Your task to perform on an android device: Go to settings Image 0: 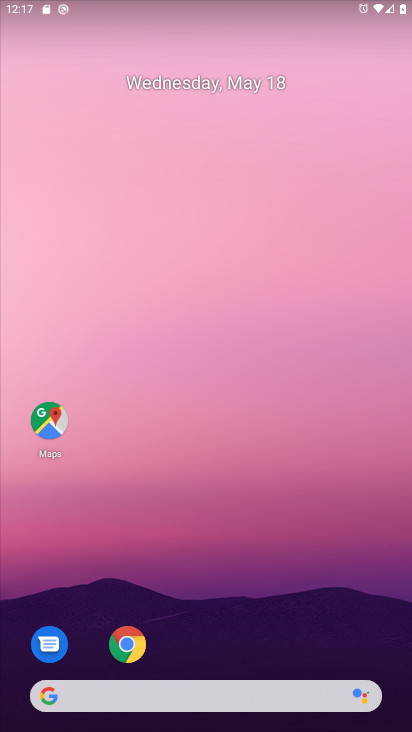
Step 0: drag from (220, 646) to (236, 128)
Your task to perform on an android device: Go to settings Image 1: 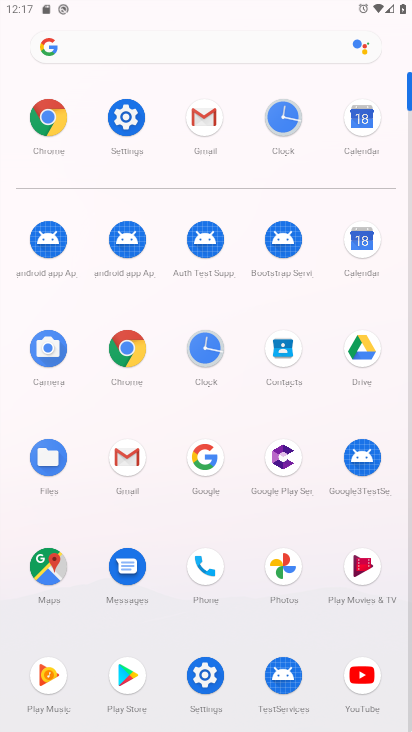
Step 1: click (128, 101)
Your task to perform on an android device: Go to settings Image 2: 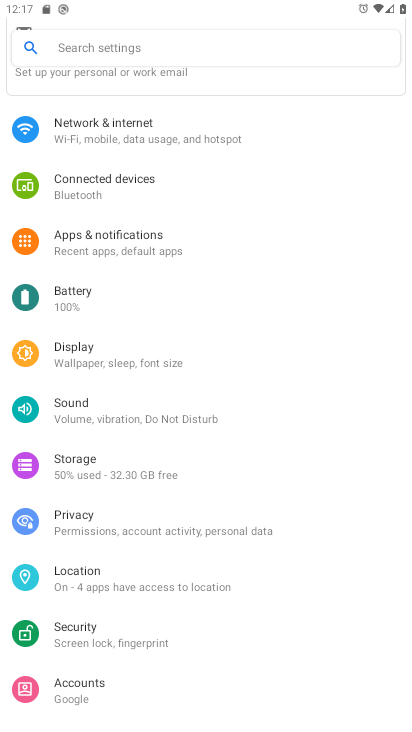
Step 2: drag from (133, 589) to (141, 308)
Your task to perform on an android device: Go to settings Image 3: 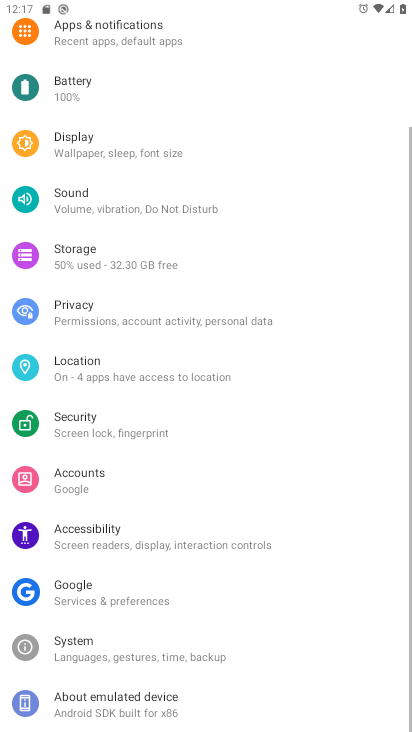
Step 3: click (141, 236)
Your task to perform on an android device: Go to settings Image 4: 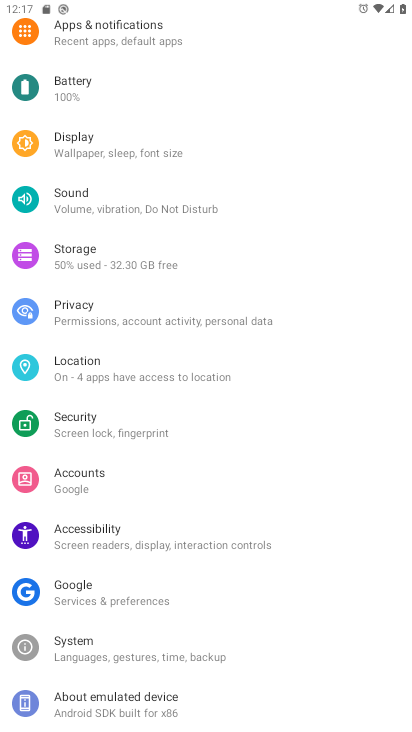
Step 4: click (206, 405)
Your task to perform on an android device: Go to settings Image 5: 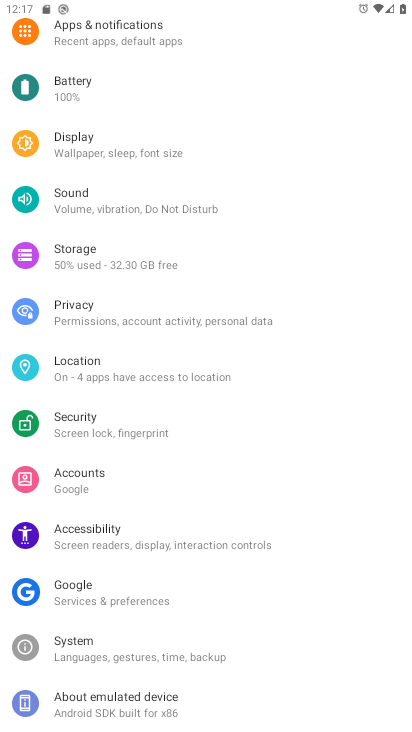
Step 5: task complete